Your task to perform on an android device: toggle notification dots Image 0: 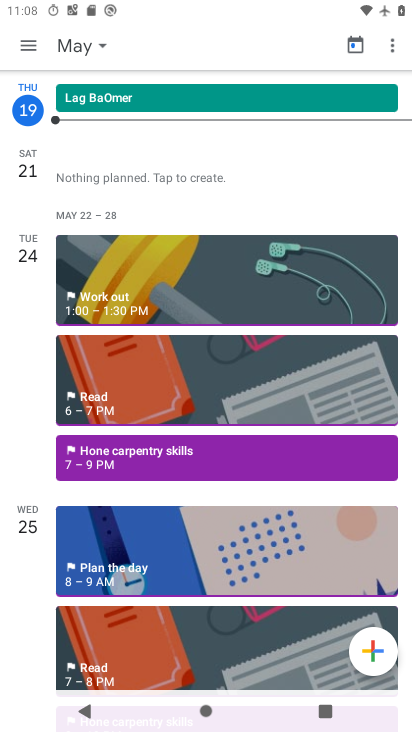
Step 0: press home button
Your task to perform on an android device: toggle notification dots Image 1: 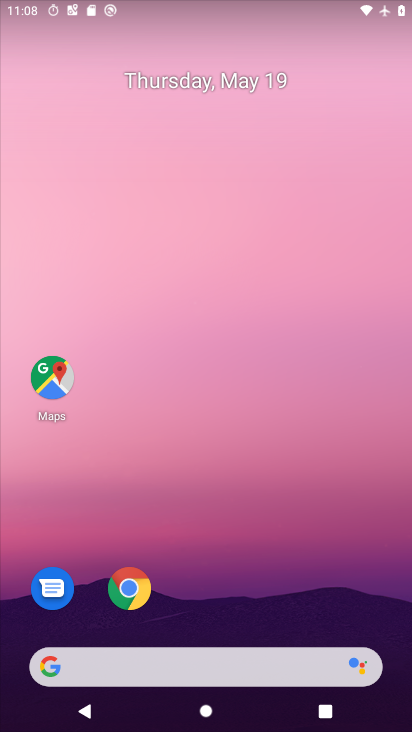
Step 1: drag from (162, 665) to (267, 77)
Your task to perform on an android device: toggle notification dots Image 2: 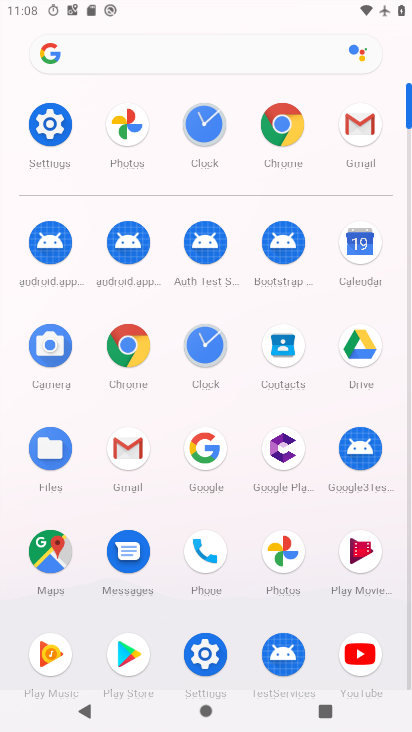
Step 2: click (62, 126)
Your task to perform on an android device: toggle notification dots Image 3: 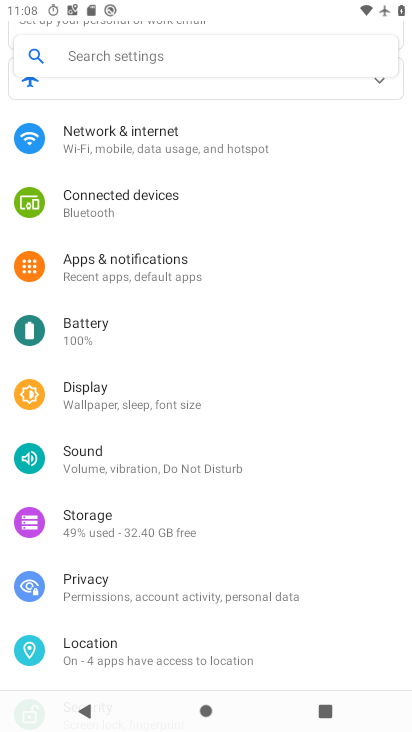
Step 3: click (158, 268)
Your task to perform on an android device: toggle notification dots Image 4: 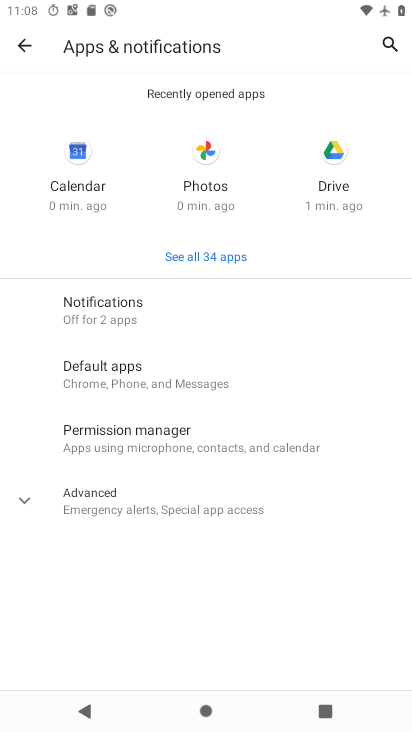
Step 4: click (128, 316)
Your task to perform on an android device: toggle notification dots Image 5: 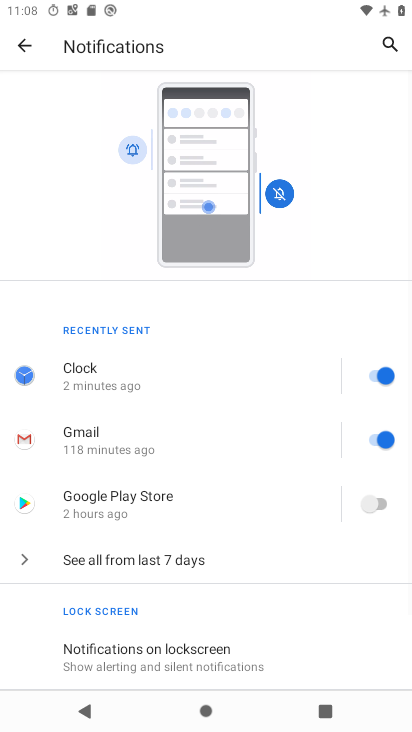
Step 5: drag from (301, 560) to (339, 172)
Your task to perform on an android device: toggle notification dots Image 6: 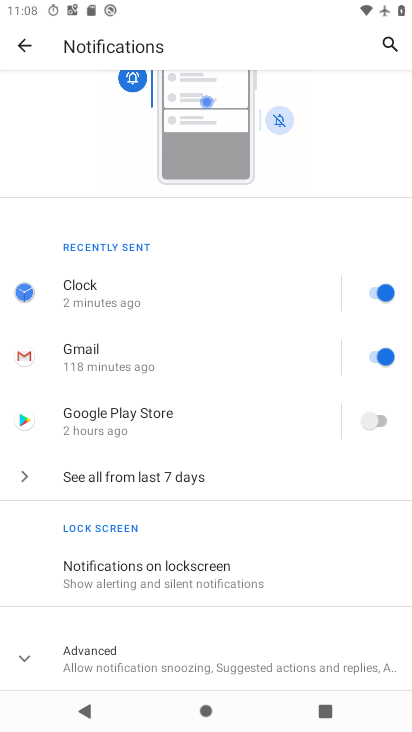
Step 6: click (196, 652)
Your task to perform on an android device: toggle notification dots Image 7: 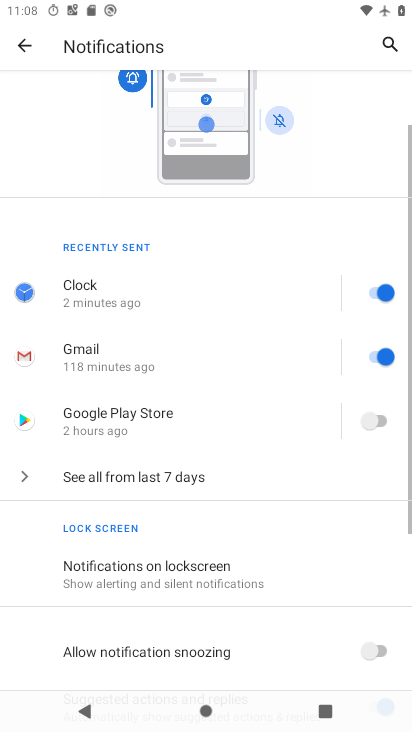
Step 7: drag from (200, 631) to (349, 237)
Your task to perform on an android device: toggle notification dots Image 8: 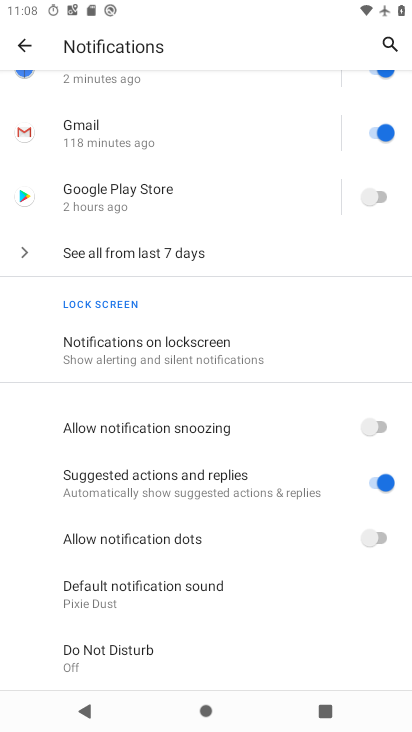
Step 8: click (379, 529)
Your task to perform on an android device: toggle notification dots Image 9: 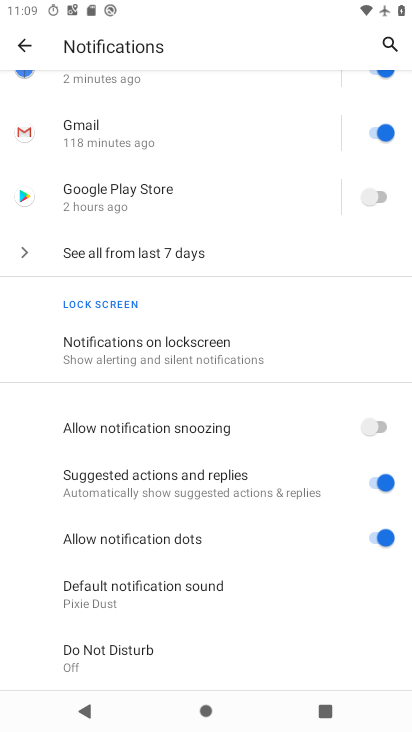
Step 9: task complete